Your task to perform on an android device: uninstall "Spotify" Image 0: 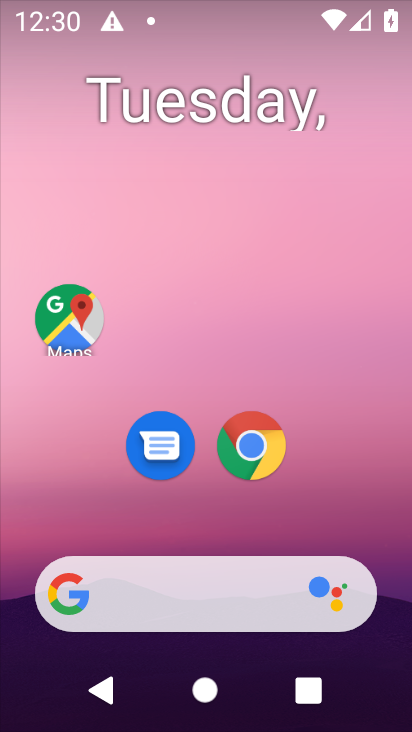
Step 0: drag from (356, 517) to (314, 85)
Your task to perform on an android device: uninstall "Spotify" Image 1: 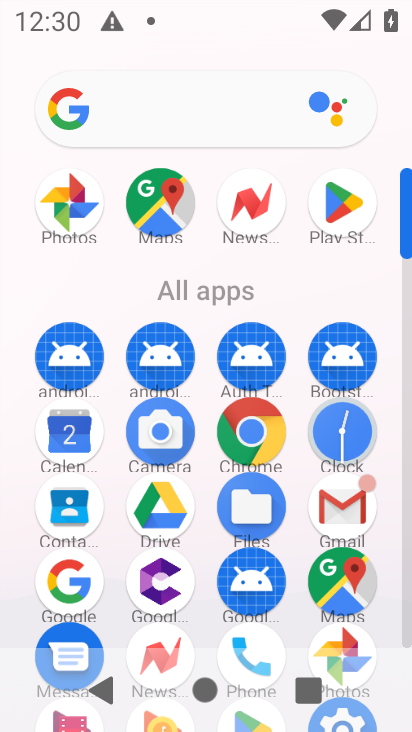
Step 1: click (327, 207)
Your task to perform on an android device: uninstall "Spotify" Image 2: 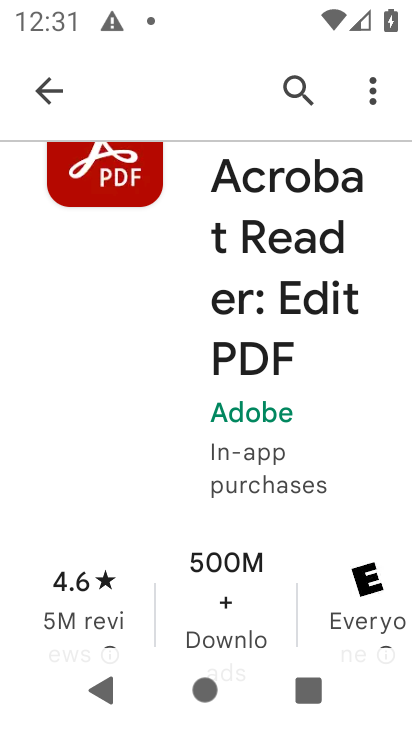
Step 2: click (290, 104)
Your task to perform on an android device: uninstall "Spotify" Image 3: 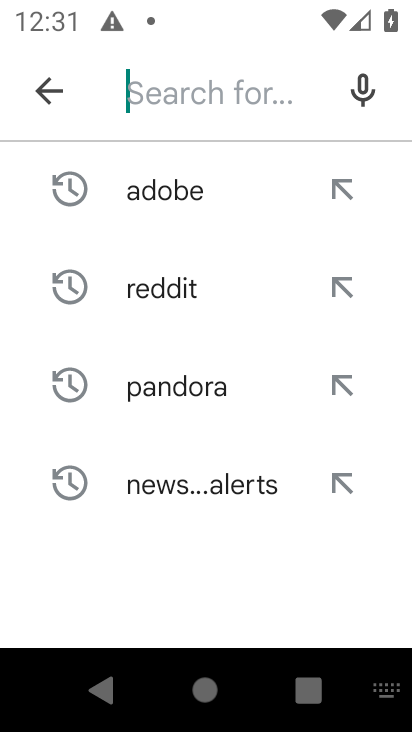
Step 3: type "spotify"
Your task to perform on an android device: uninstall "Spotify" Image 4: 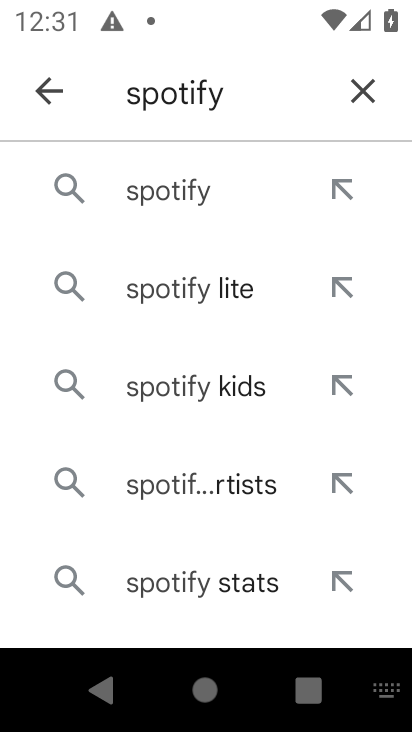
Step 4: click (243, 189)
Your task to perform on an android device: uninstall "Spotify" Image 5: 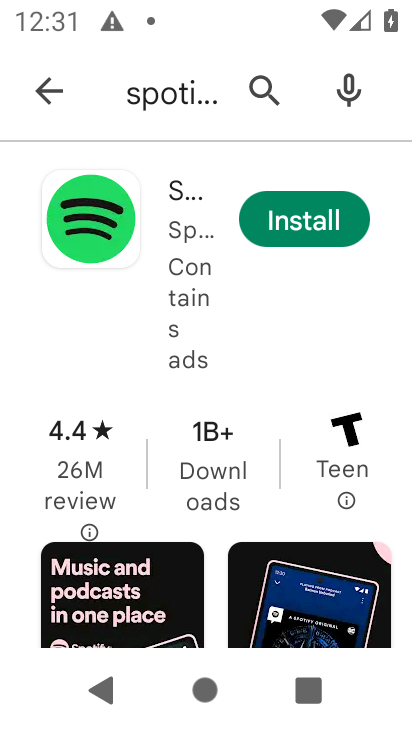
Step 5: task complete